Your task to perform on an android device: Do I have any events tomorrow? Image 0: 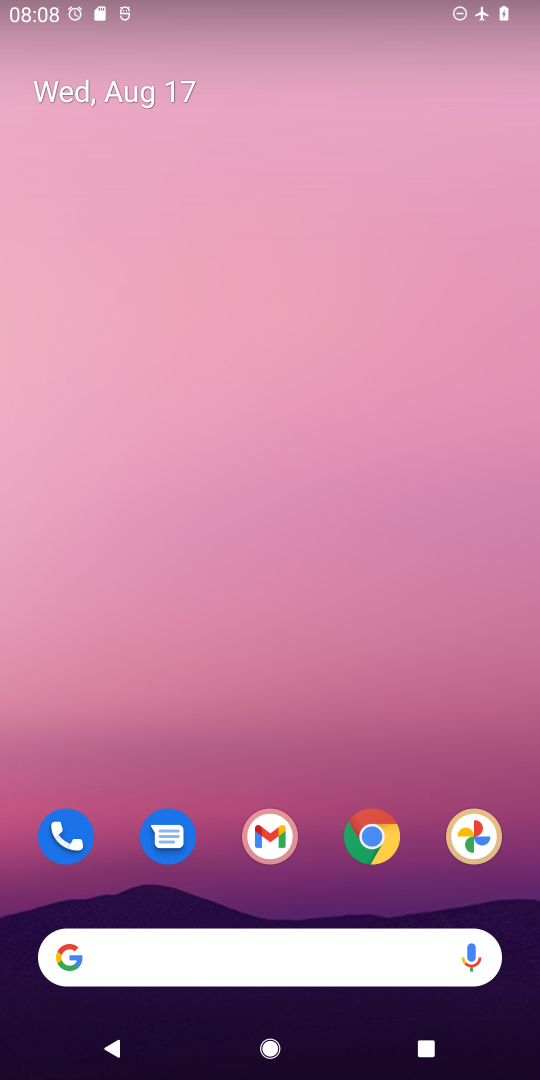
Step 0: drag from (154, 734) to (158, 181)
Your task to perform on an android device: Do I have any events tomorrow? Image 1: 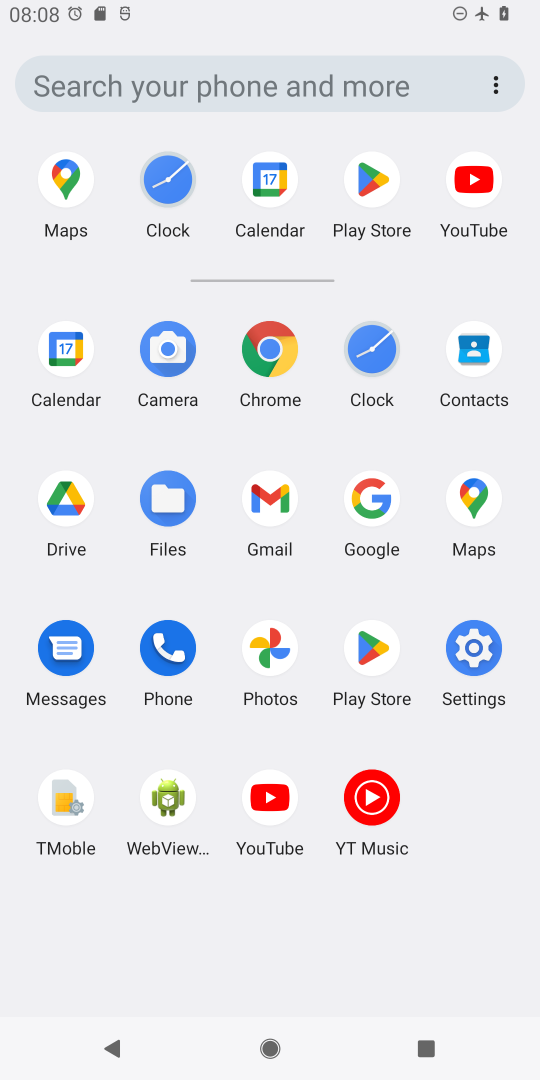
Step 1: click (67, 354)
Your task to perform on an android device: Do I have any events tomorrow? Image 2: 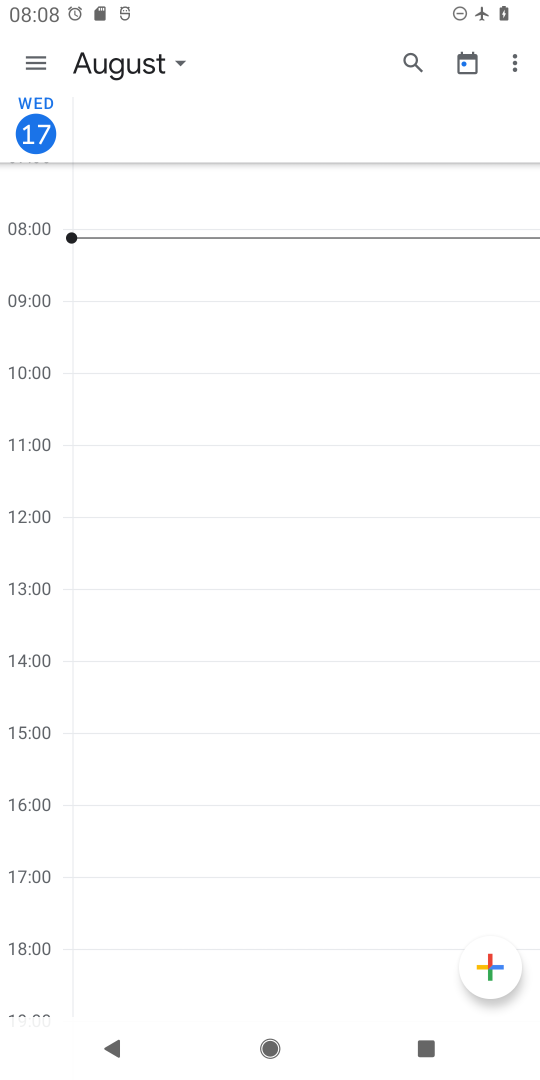
Step 2: click (40, 62)
Your task to perform on an android device: Do I have any events tomorrow? Image 3: 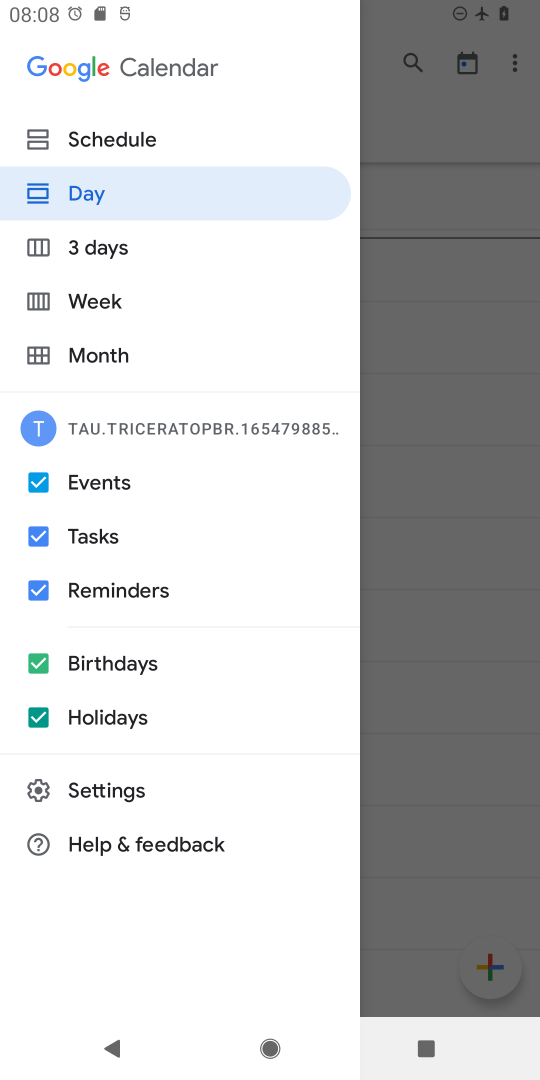
Step 3: click (107, 260)
Your task to perform on an android device: Do I have any events tomorrow? Image 4: 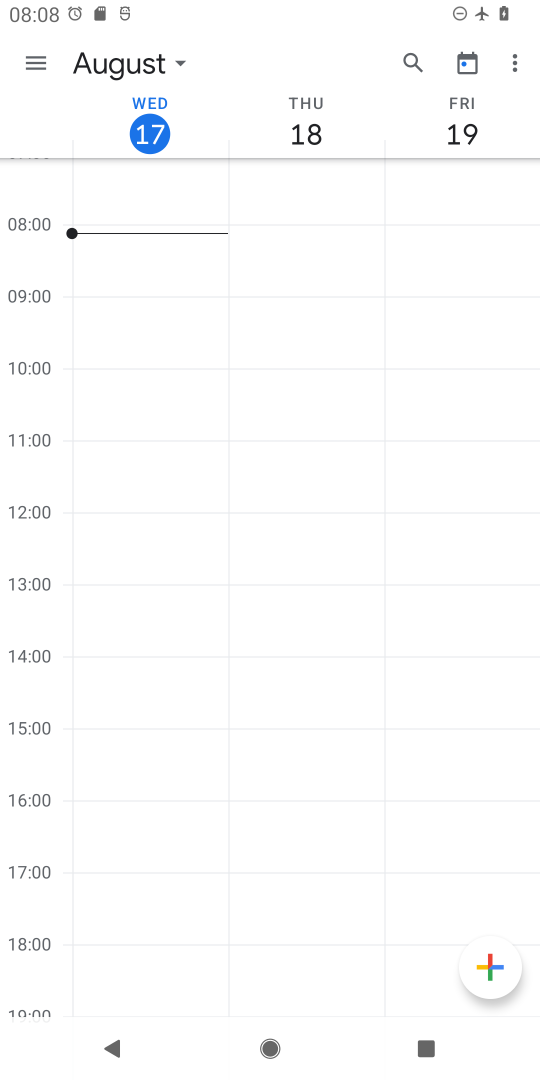
Step 4: click (326, 114)
Your task to perform on an android device: Do I have any events tomorrow? Image 5: 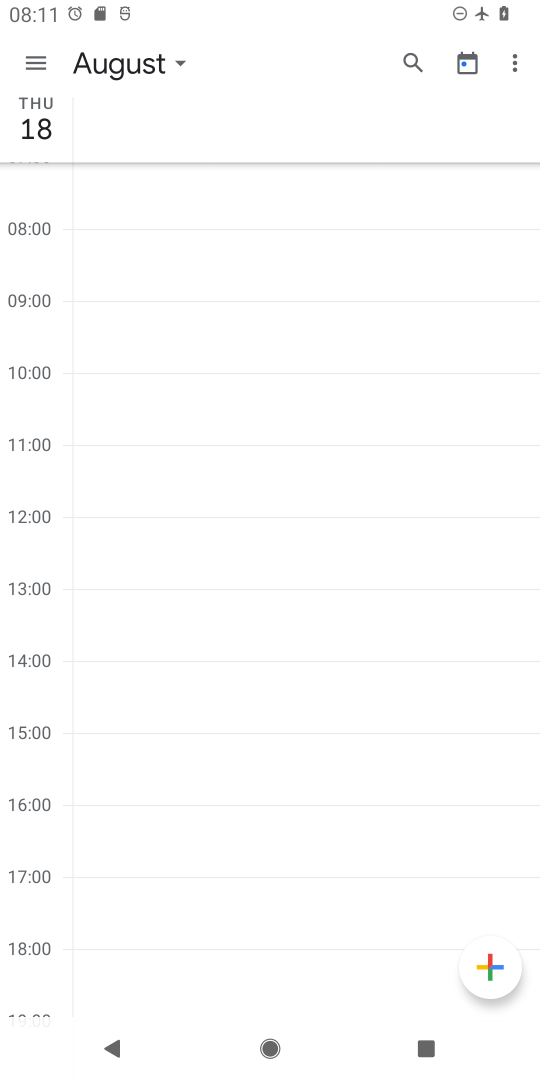
Step 5: task complete